Your task to perform on an android device: toggle pop-ups in chrome Image 0: 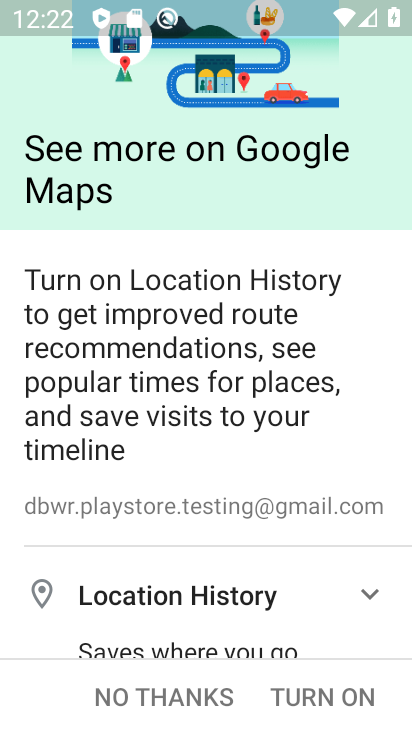
Step 0: press home button
Your task to perform on an android device: toggle pop-ups in chrome Image 1: 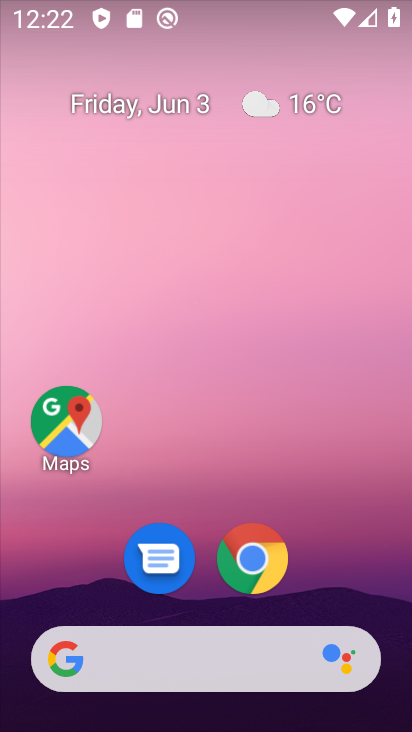
Step 1: drag from (368, 580) to (376, 231)
Your task to perform on an android device: toggle pop-ups in chrome Image 2: 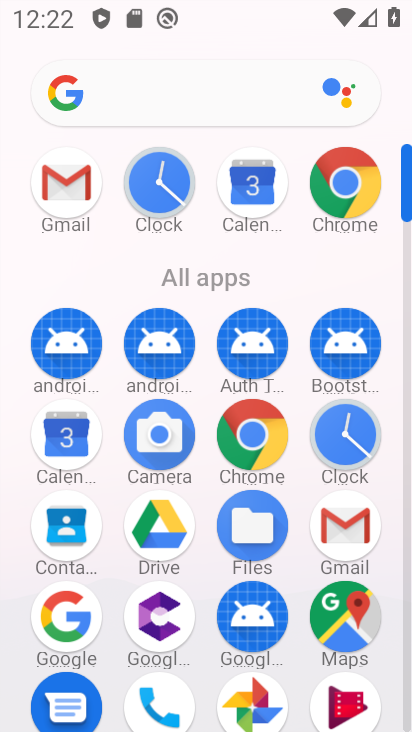
Step 2: click (269, 434)
Your task to perform on an android device: toggle pop-ups in chrome Image 3: 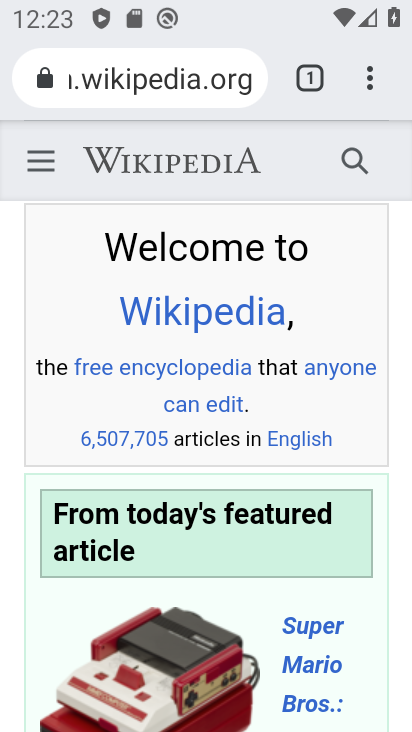
Step 3: click (372, 84)
Your task to perform on an android device: toggle pop-ups in chrome Image 4: 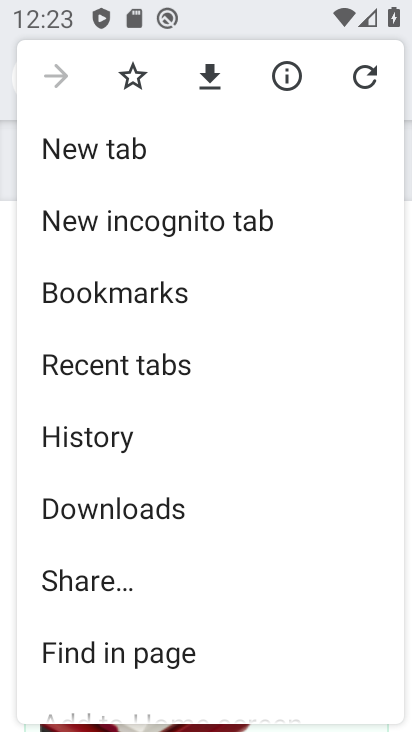
Step 4: drag from (272, 413) to (288, 317)
Your task to perform on an android device: toggle pop-ups in chrome Image 5: 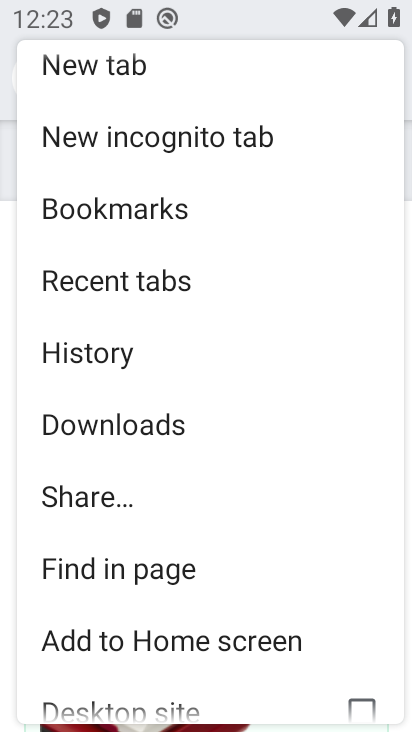
Step 5: drag from (310, 441) to (305, 260)
Your task to perform on an android device: toggle pop-ups in chrome Image 6: 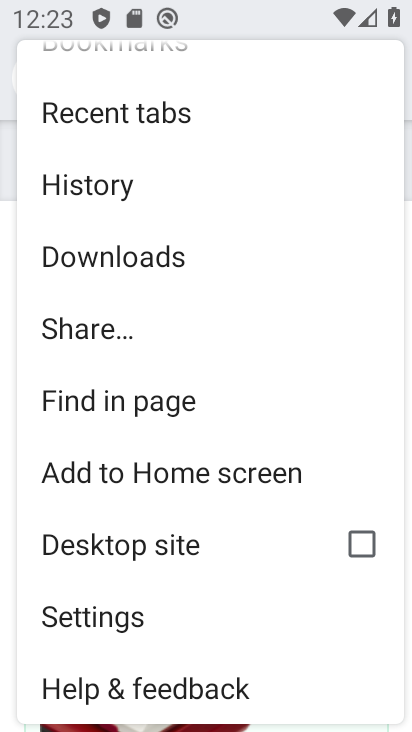
Step 6: click (139, 615)
Your task to perform on an android device: toggle pop-ups in chrome Image 7: 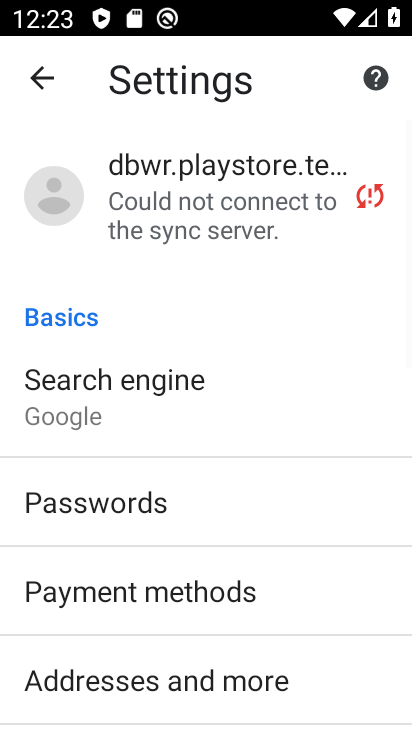
Step 7: drag from (302, 548) to (333, 461)
Your task to perform on an android device: toggle pop-ups in chrome Image 8: 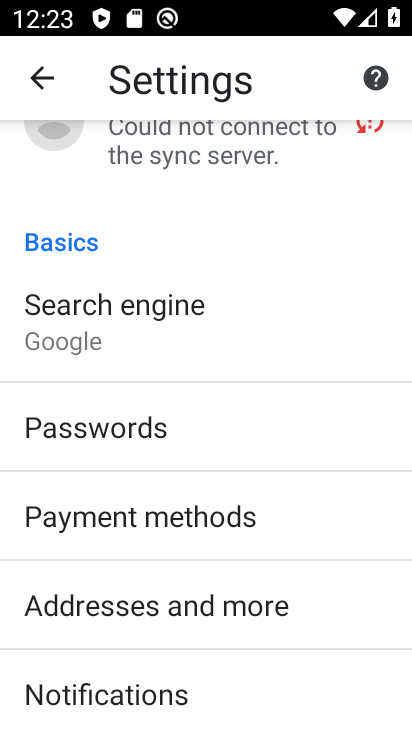
Step 8: drag from (337, 517) to (347, 427)
Your task to perform on an android device: toggle pop-ups in chrome Image 9: 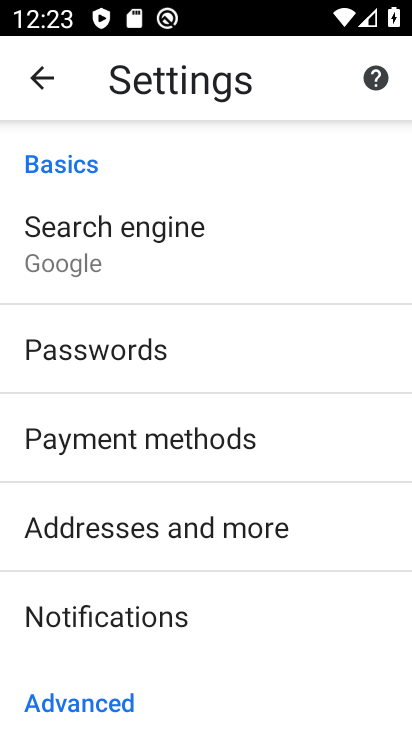
Step 9: drag from (341, 531) to (344, 446)
Your task to perform on an android device: toggle pop-ups in chrome Image 10: 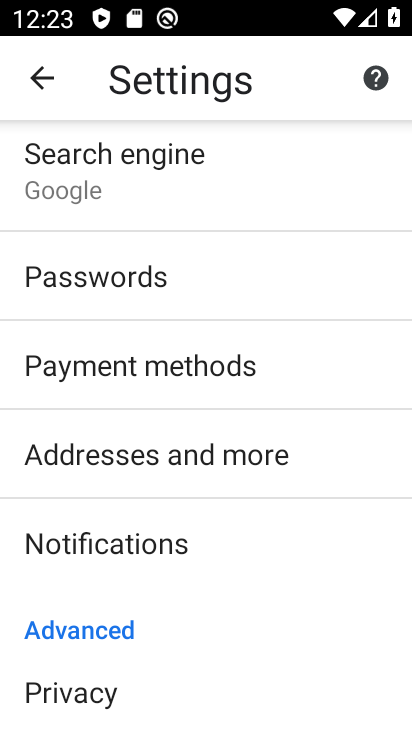
Step 10: drag from (334, 501) to (344, 430)
Your task to perform on an android device: toggle pop-ups in chrome Image 11: 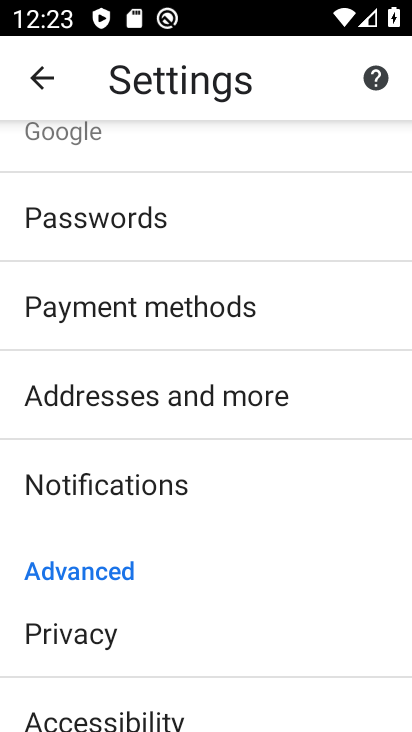
Step 11: drag from (332, 500) to (344, 337)
Your task to perform on an android device: toggle pop-ups in chrome Image 12: 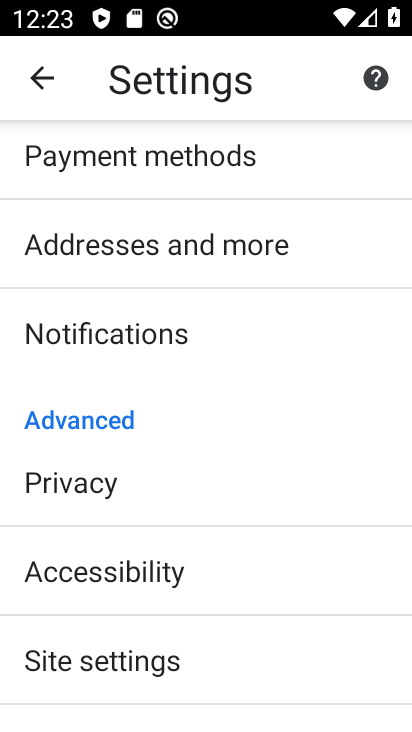
Step 12: drag from (320, 517) to (331, 363)
Your task to perform on an android device: toggle pop-ups in chrome Image 13: 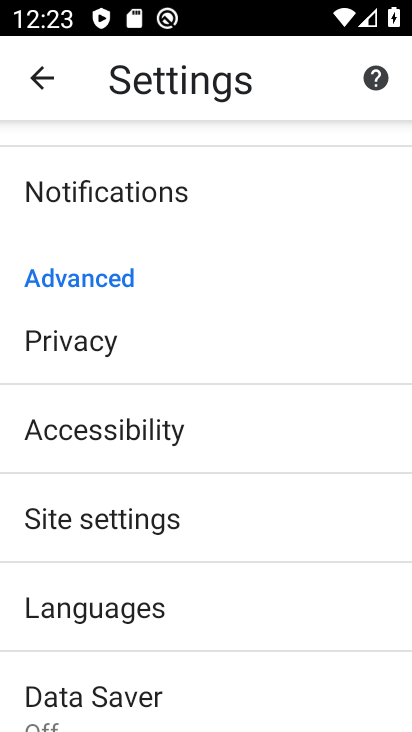
Step 13: click (296, 526)
Your task to perform on an android device: toggle pop-ups in chrome Image 14: 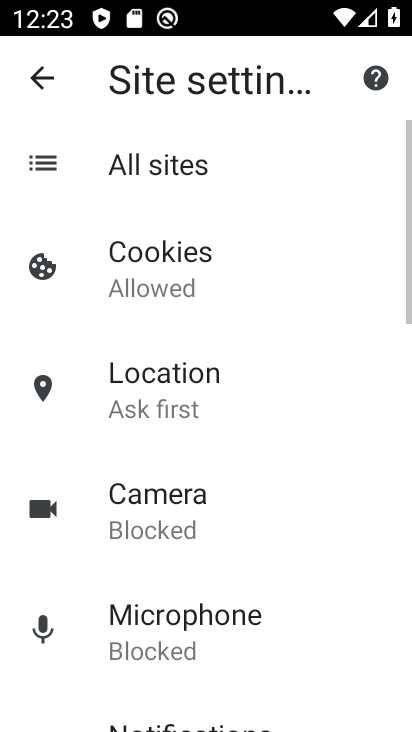
Step 14: drag from (296, 526) to (322, 419)
Your task to perform on an android device: toggle pop-ups in chrome Image 15: 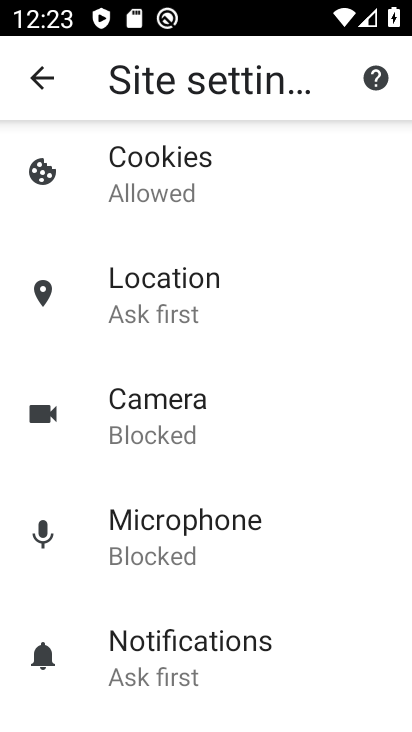
Step 15: drag from (321, 509) to (337, 447)
Your task to perform on an android device: toggle pop-ups in chrome Image 16: 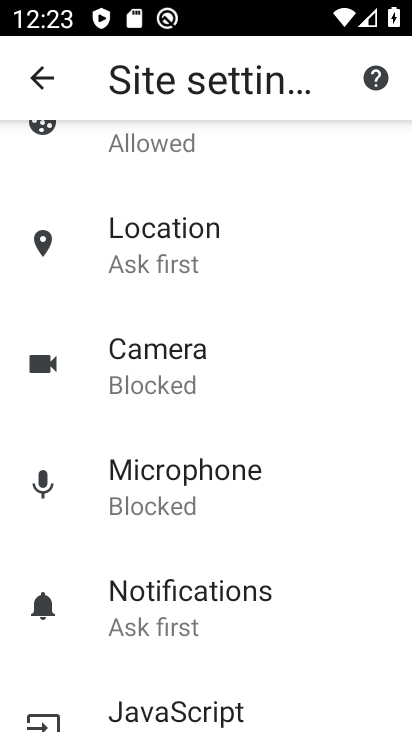
Step 16: drag from (323, 507) to (345, 406)
Your task to perform on an android device: toggle pop-ups in chrome Image 17: 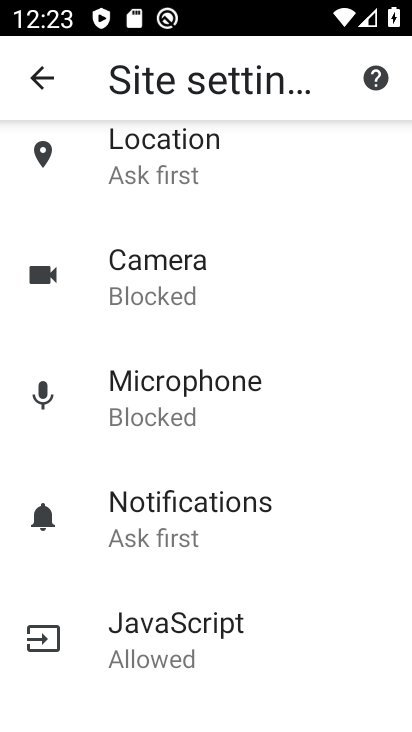
Step 17: drag from (320, 551) to (334, 422)
Your task to perform on an android device: toggle pop-ups in chrome Image 18: 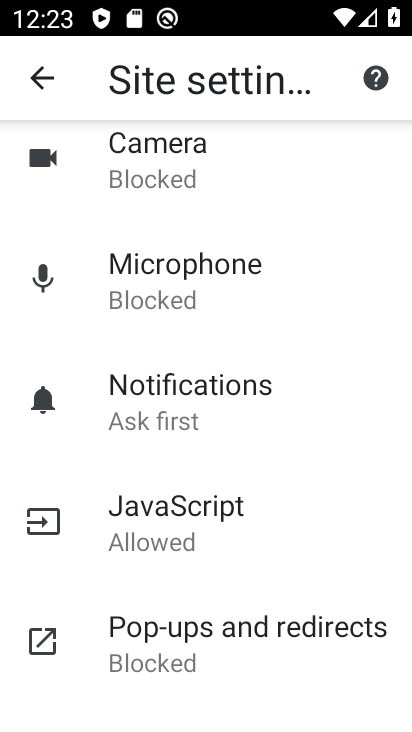
Step 18: click (235, 639)
Your task to perform on an android device: toggle pop-ups in chrome Image 19: 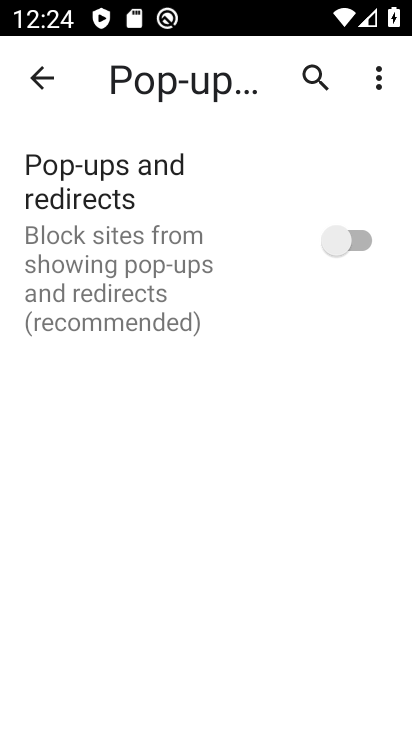
Step 19: click (357, 238)
Your task to perform on an android device: toggle pop-ups in chrome Image 20: 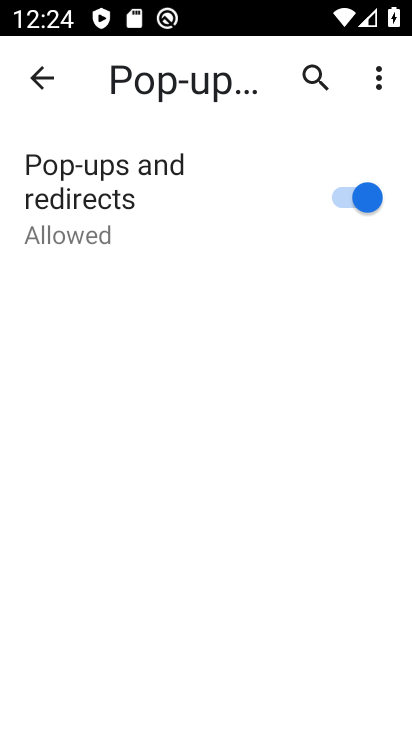
Step 20: task complete